Your task to perform on an android device: turn on airplane mode Image 0: 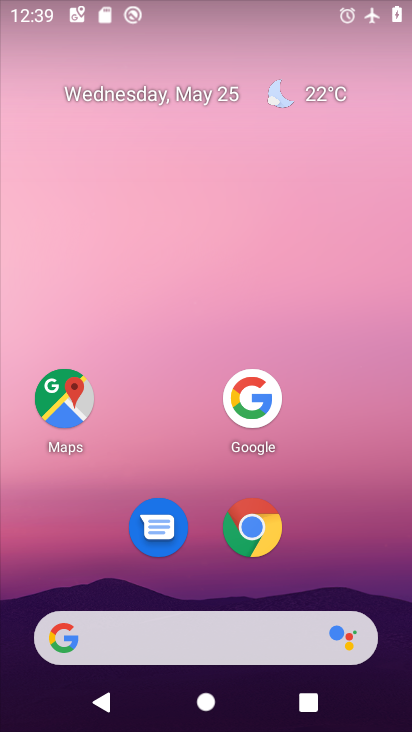
Step 0: press home button
Your task to perform on an android device: turn on airplane mode Image 1: 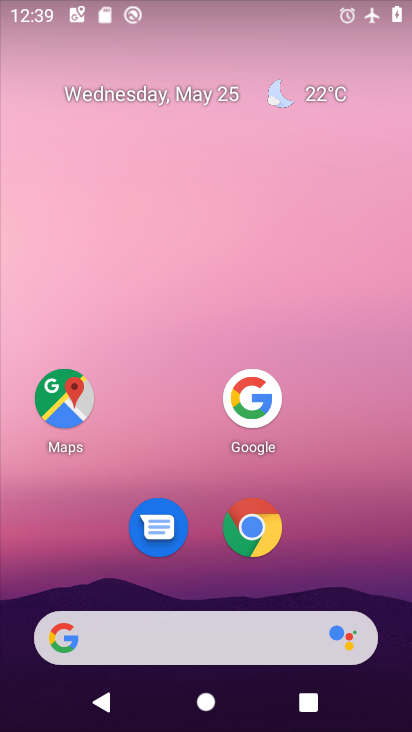
Step 1: drag from (176, 621) to (324, 31)
Your task to perform on an android device: turn on airplane mode Image 2: 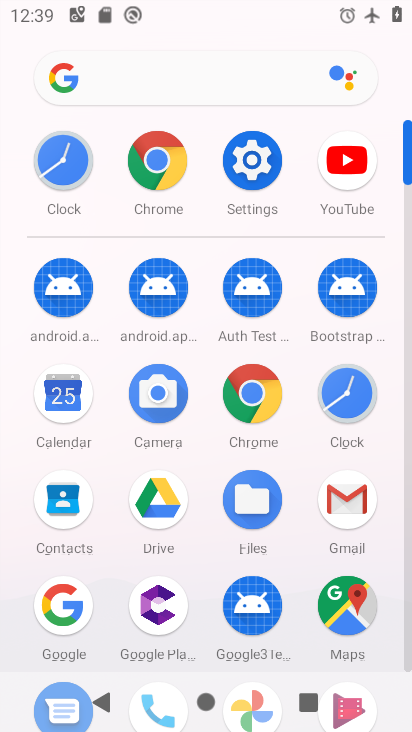
Step 2: click (252, 155)
Your task to perform on an android device: turn on airplane mode Image 3: 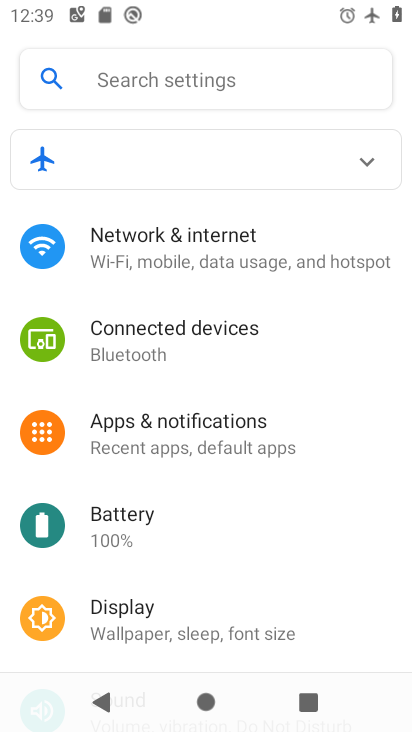
Step 3: click (220, 256)
Your task to perform on an android device: turn on airplane mode Image 4: 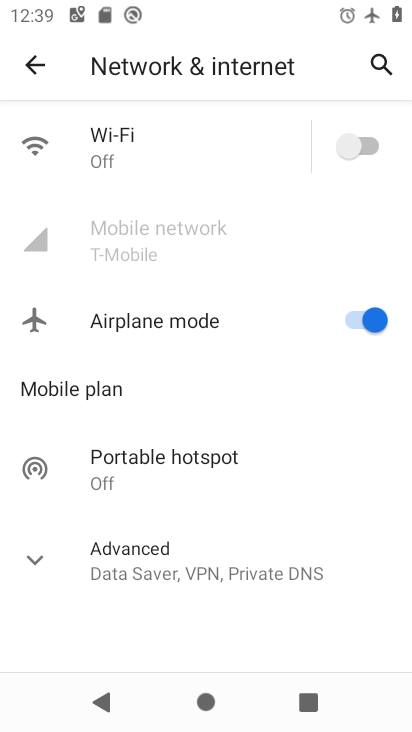
Step 4: task complete